Your task to perform on an android device: Go to Google Image 0: 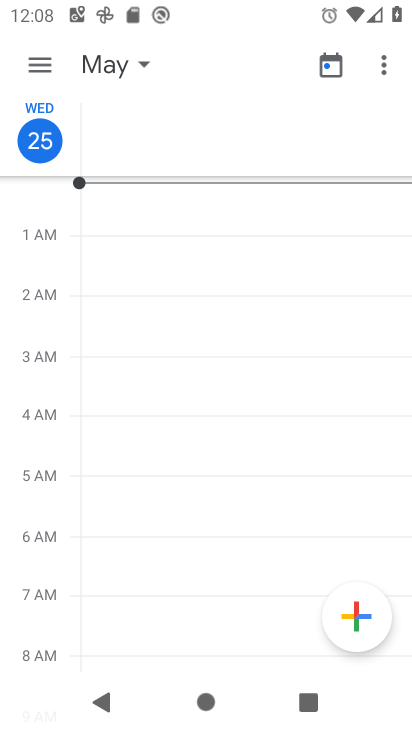
Step 0: press home button
Your task to perform on an android device: Go to Google Image 1: 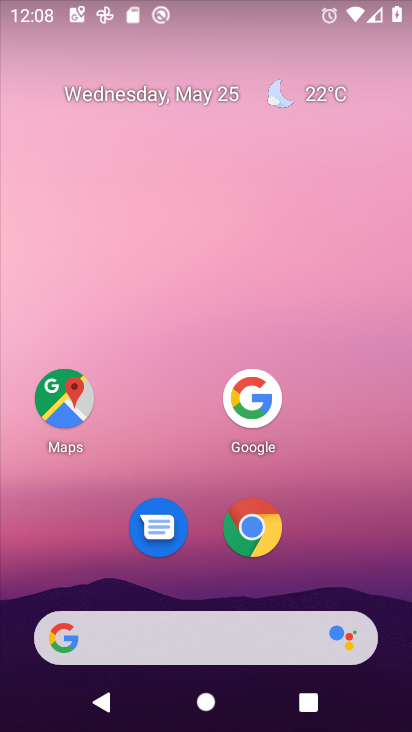
Step 1: click (263, 404)
Your task to perform on an android device: Go to Google Image 2: 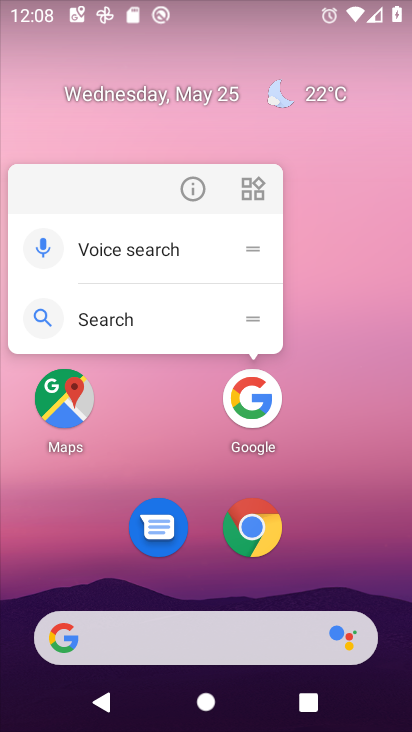
Step 2: click (260, 407)
Your task to perform on an android device: Go to Google Image 3: 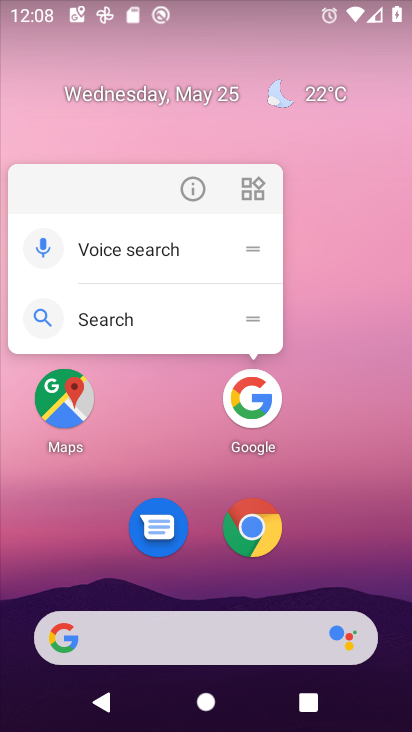
Step 3: click (267, 401)
Your task to perform on an android device: Go to Google Image 4: 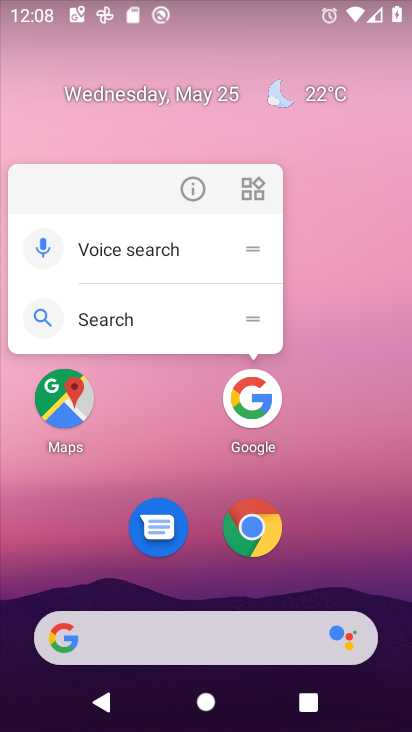
Step 4: click (267, 401)
Your task to perform on an android device: Go to Google Image 5: 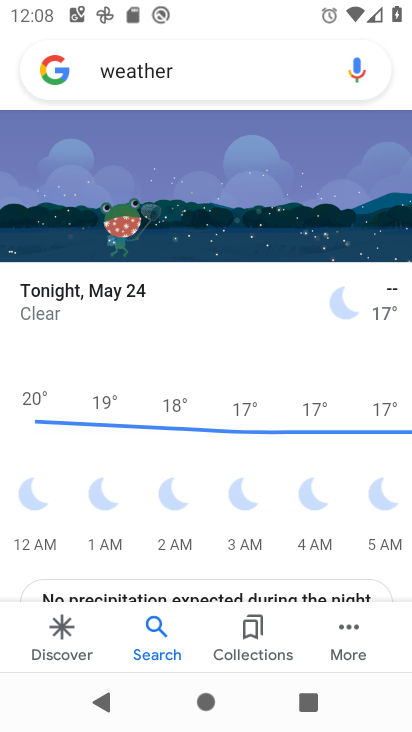
Step 5: click (62, 629)
Your task to perform on an android device: Go to Google Image 6: 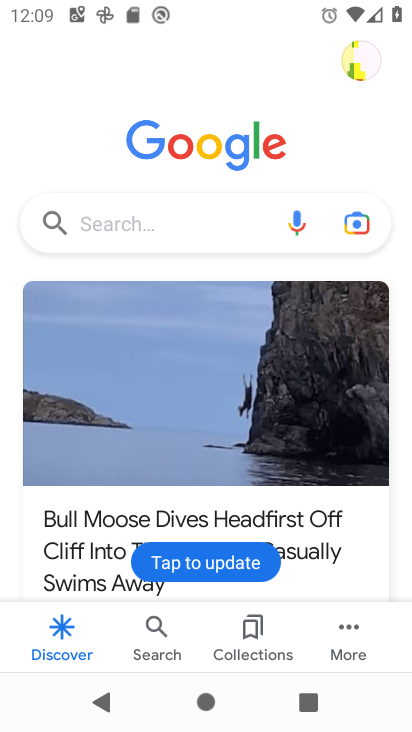
Step 6: task complete